Your task to perform on an android device: Open the map Image 0: 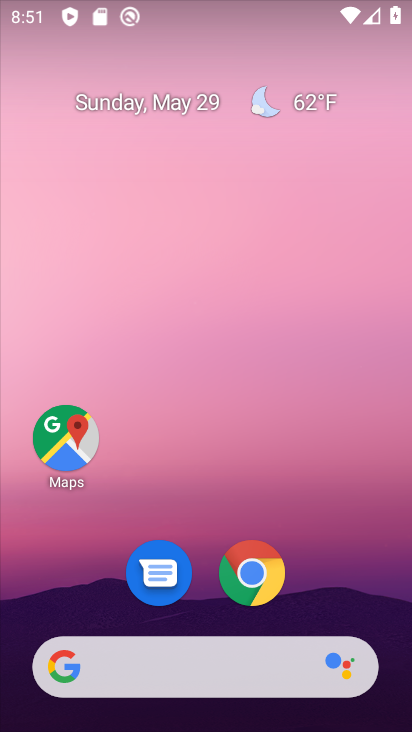
Step 0: press home button
Your task to perform on an android device: Open the map Image 1: 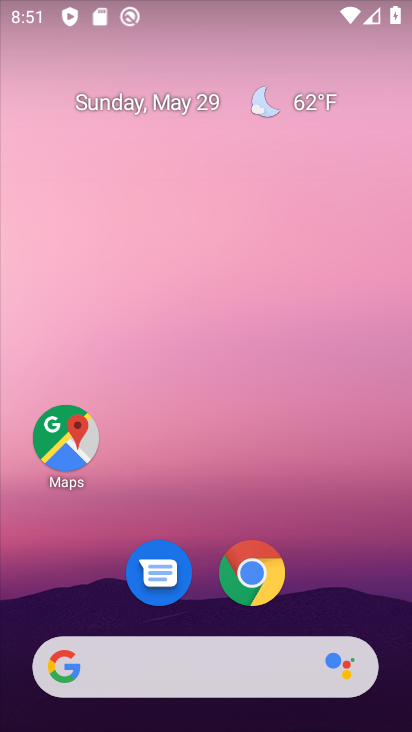
Step 1: click (74, 442)
Your task to perform on an android device: Open the map Image 2: 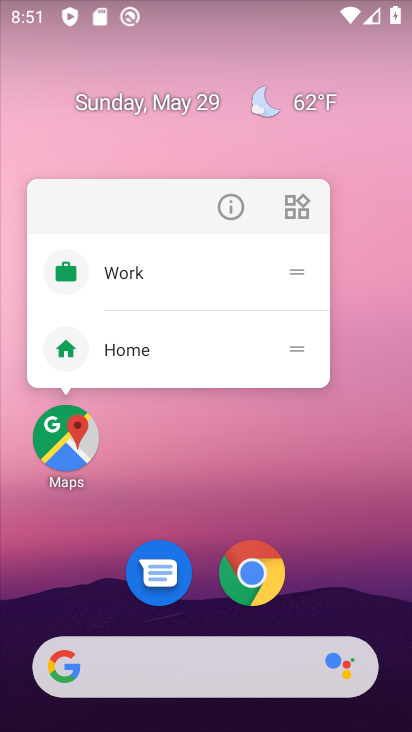
Step 2: click (63, 464)
Your task to perform on an android device: Open the map Image 3: 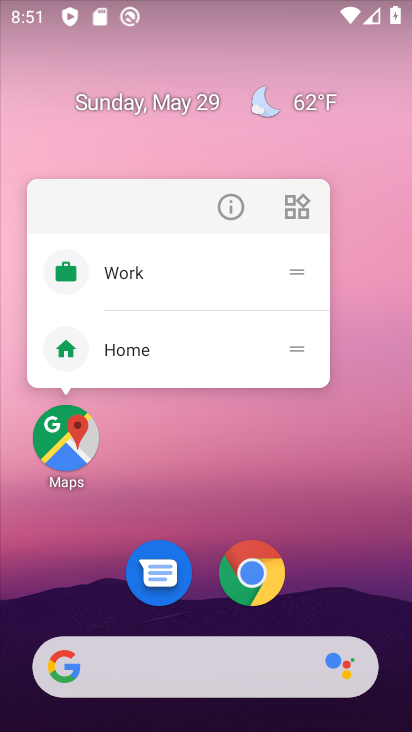
Step 3: click (367, 598)
Your task to perform on an android device: Open the map Image 4: 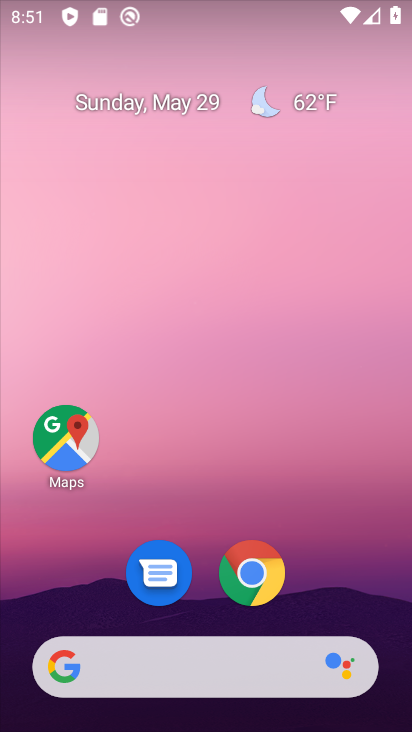
Step 4: drag from (369, 626) to (331, 287)
Your task to perform on an android device: Open the map Image 5: 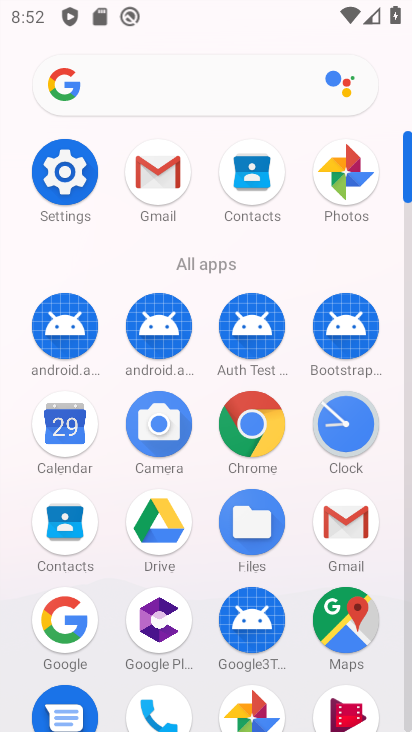
Step 5: click (336, 617)
Your task to perform on an android device: Open the map Image 6: 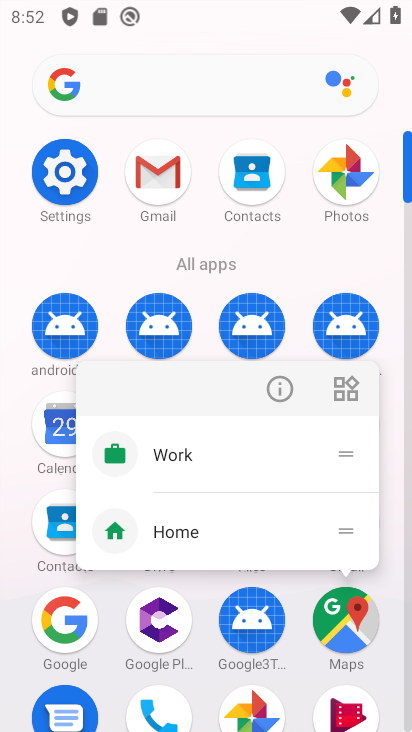
Step 6: click (355, 627)
Your task to perform on an android device: Open the map Image 7: 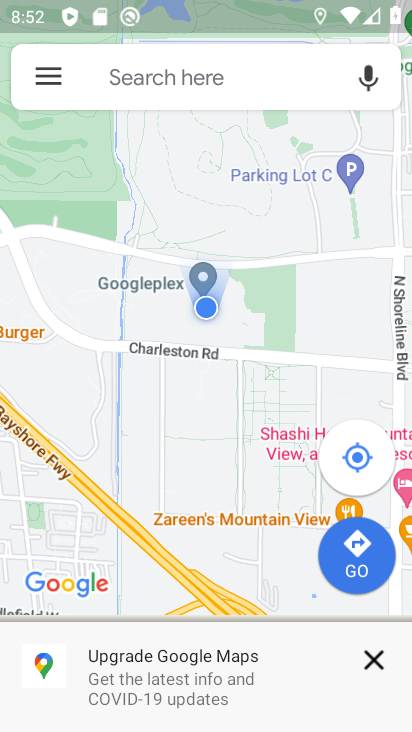
Step 7: task complete